Your task to perform on an android device: open app "Microsoft Outlook" (install if not already installed) Image 0: 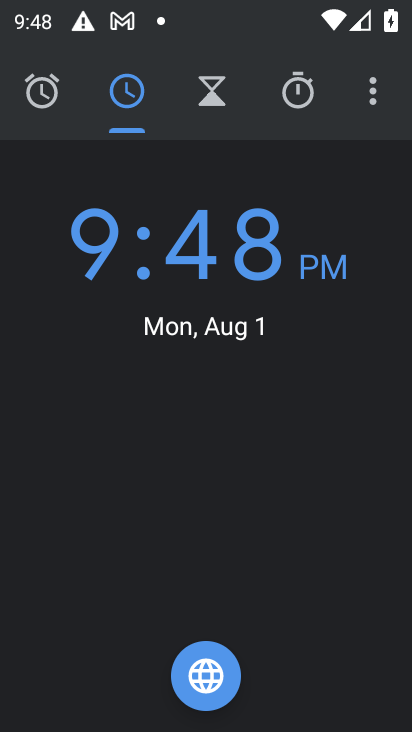
Step 0: press home button
Your task to perform on an android device: open app "Microsoft Outlook" (install if not already installed) Image 1: 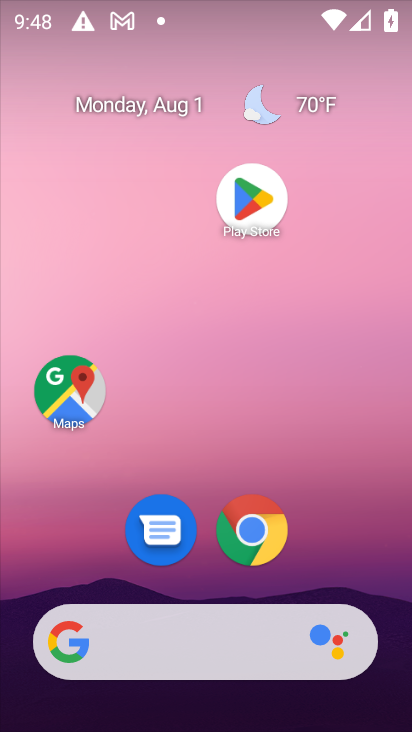
Step 1: click (264, 219)
Your task to perform on an android device: open app "Microsoft Outlook" (install if not already installed) Image 2: 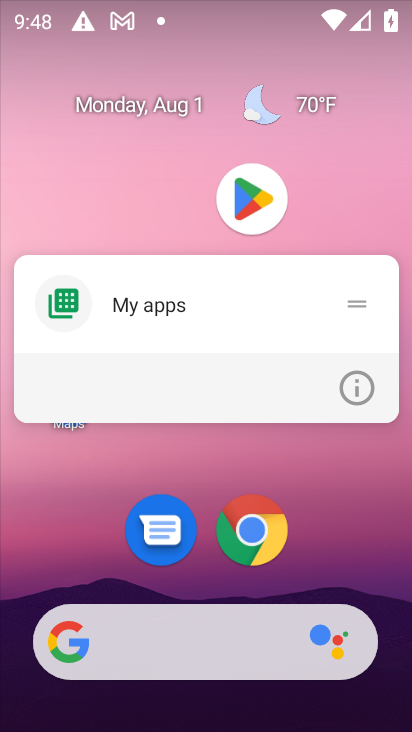
Step 2: click (264, 210)
Your task to perform on an android device: open app "Microsoft Outlook" (install if not already installed) Image 3: 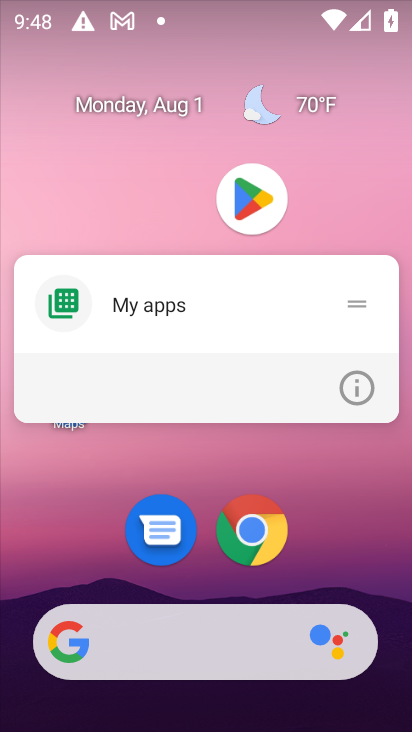
Step 3: click (264, 210)
Your task to perform on an android device: open app "Microsoft Outlook" (install if not already installed) Image 4: 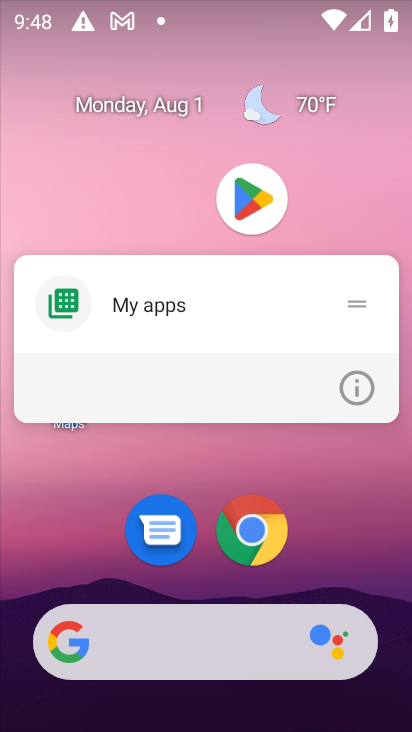
Step 4: click (264, 210)
Your task to perform on an android device: open app "Microsoft Outlook" (install if not already installed) Image 5: 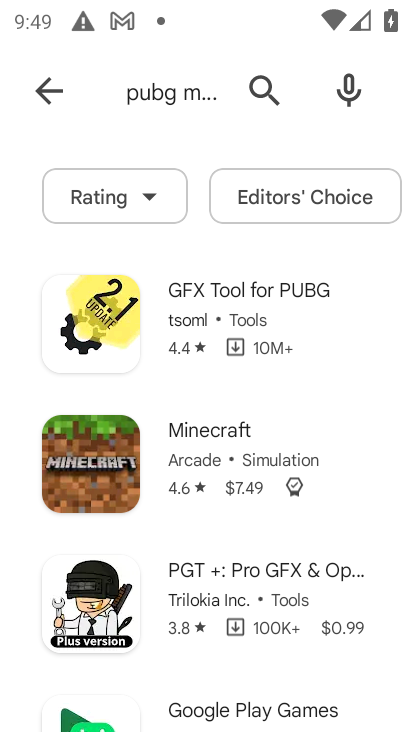
Step 5: click (266, 91)
Your task to perform on an android device: open app "Microsoft Outlook" (install if not already installed) Image 6: 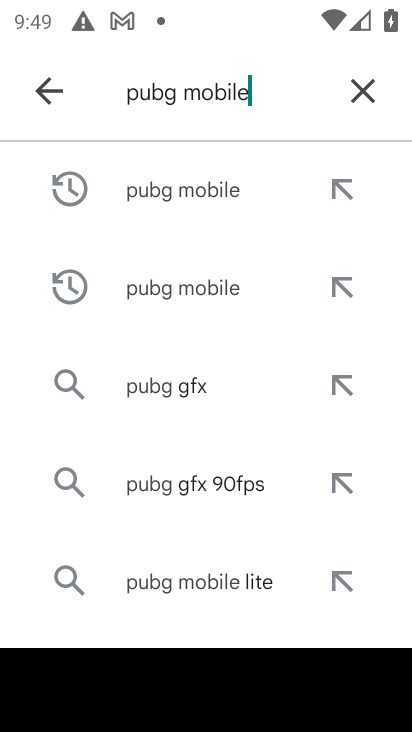
Step 6: click (359, 84)
Your task to perform on an android device: open app "Microsoft Outlook" (install if not already installed) Image 7: 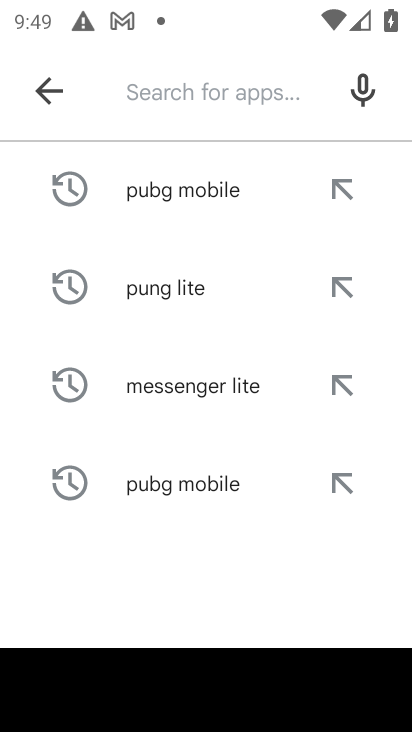
Step 7: type "microsoft outlook"
Your task to perform on an android device: open app "Microsoft Outlook" (install if not already installed) Image 8: 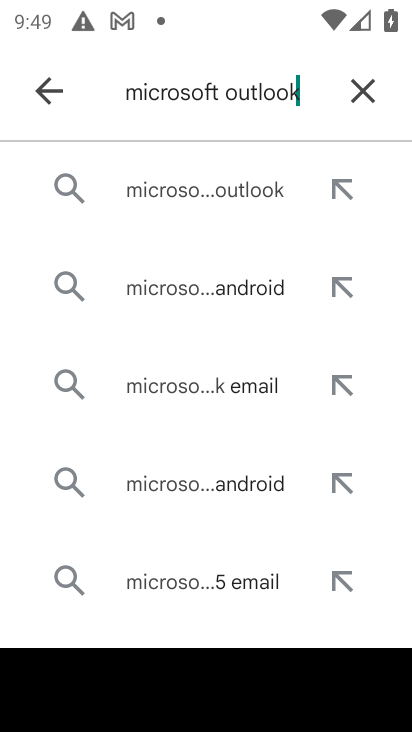
Step 8: click (203, 186)
Your task to perform on an android device: open app "Microsoft Outlook" (install if not already installed) Image 9: 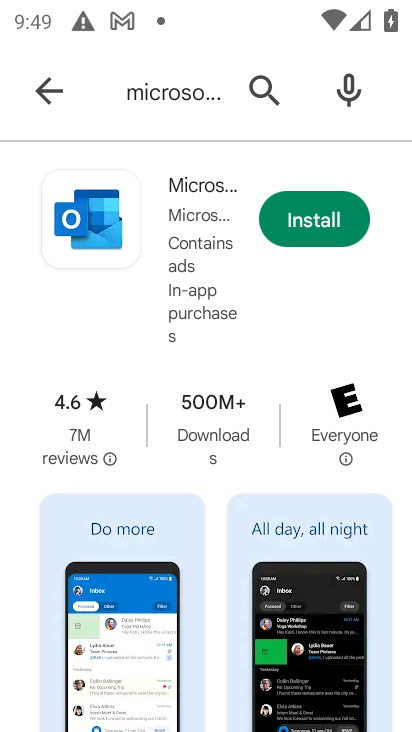
Step 9: click (309, 232)
Your task to perform on an android device: open app "Microsoft Outlook" (install if not already installed) Image 10: 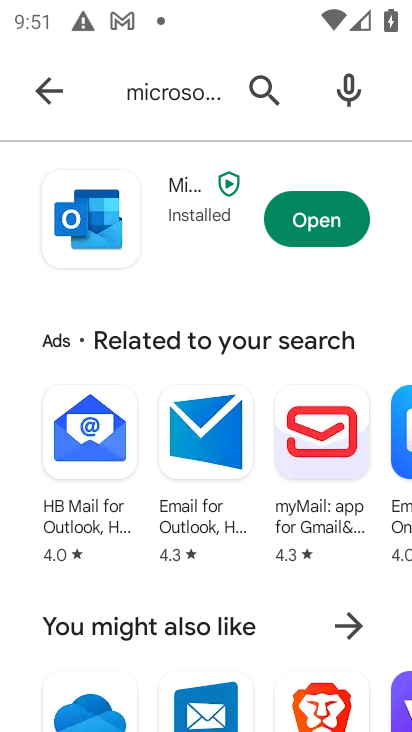
Step 10: click (346, 204)
Your task to perform on an android device: open app "Microsoft Outlook" (install if not already installed) Image 11: 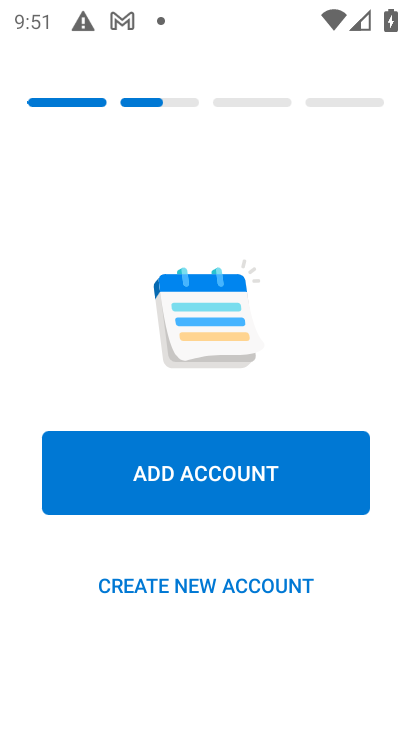
Step 11: task complete